Your task to perform on an android device: Search for "bose soundlink mini" on target.com, select the first entry, and add it to the cart. Image 0: 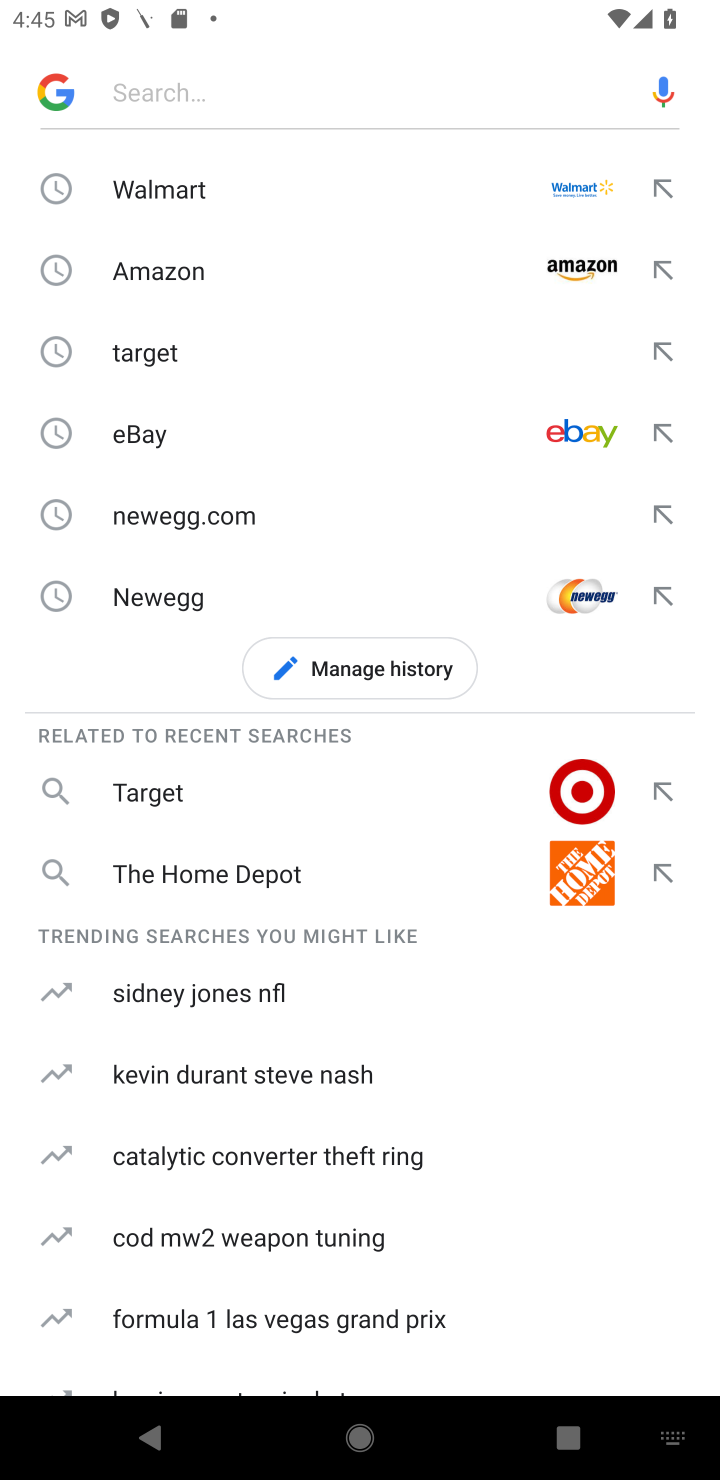
Step 0: type "target.com"
Your task to perform on an android device: Search for "bose soundlink mini" on target.com, select the first entry, and add it to the cart. Image 1: 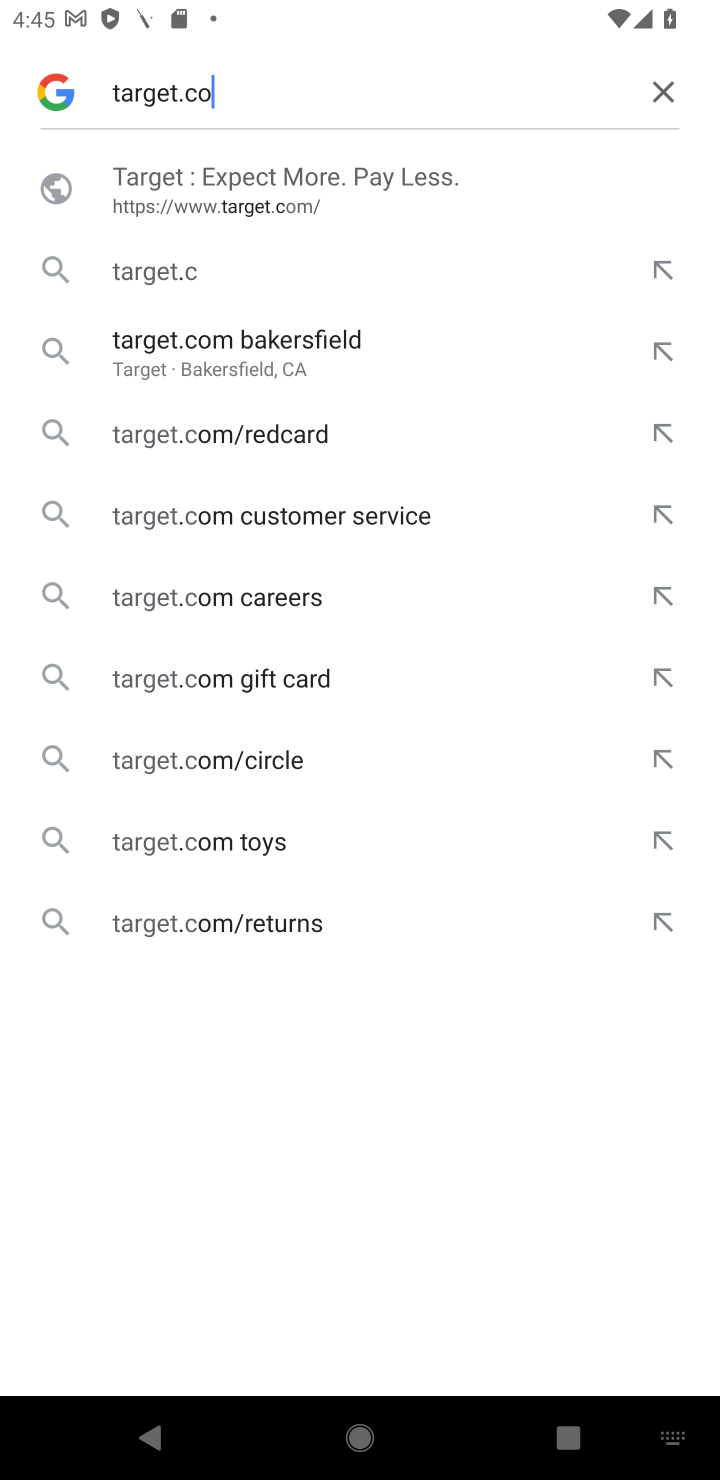
Step 1: type ""
Your task to perform on an android device: Search for "bose soundlink mini" on target.com, select the first entry, and add it to the cart. Image 2: 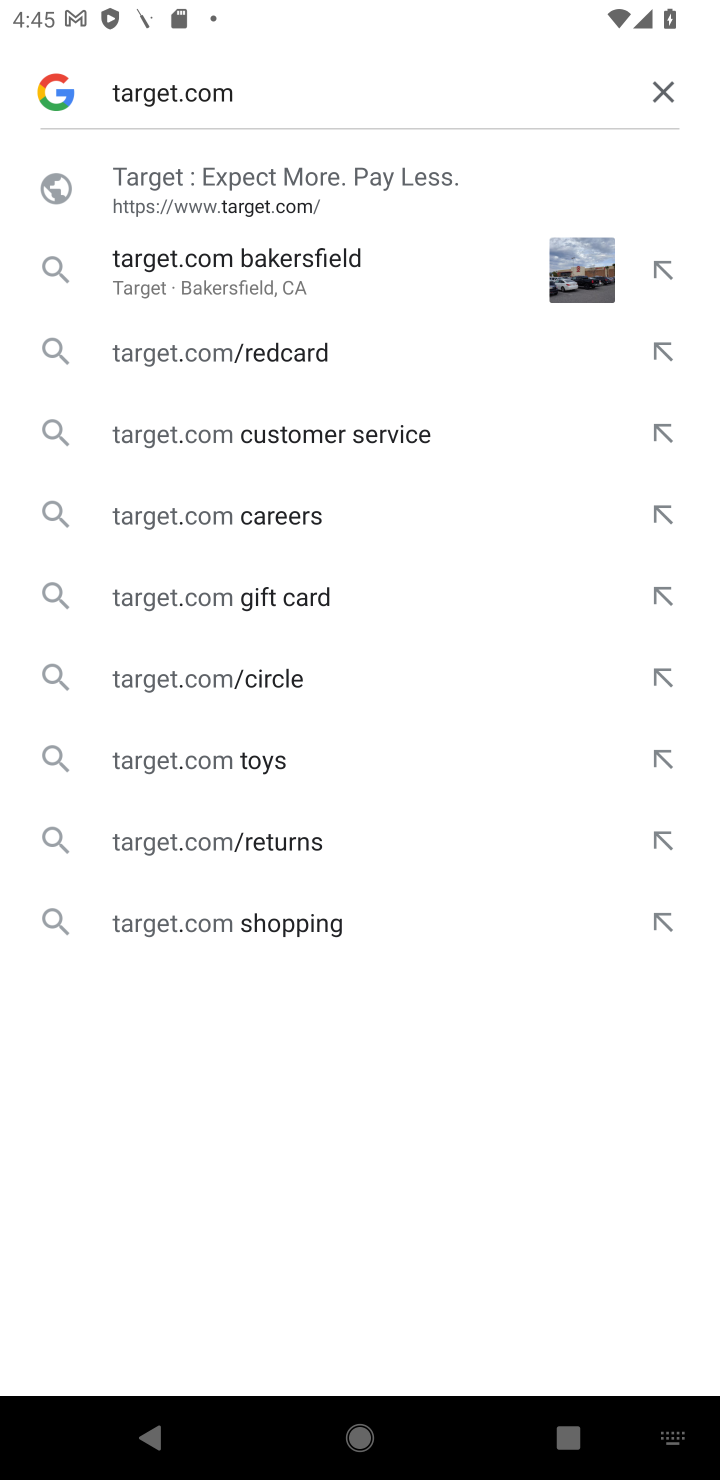
Step 2: click (201, 184)
Your task to perform on an android device: Search for "bose soundlink mini" on target.com, select the first entry, and add it to the cart. Image 3: 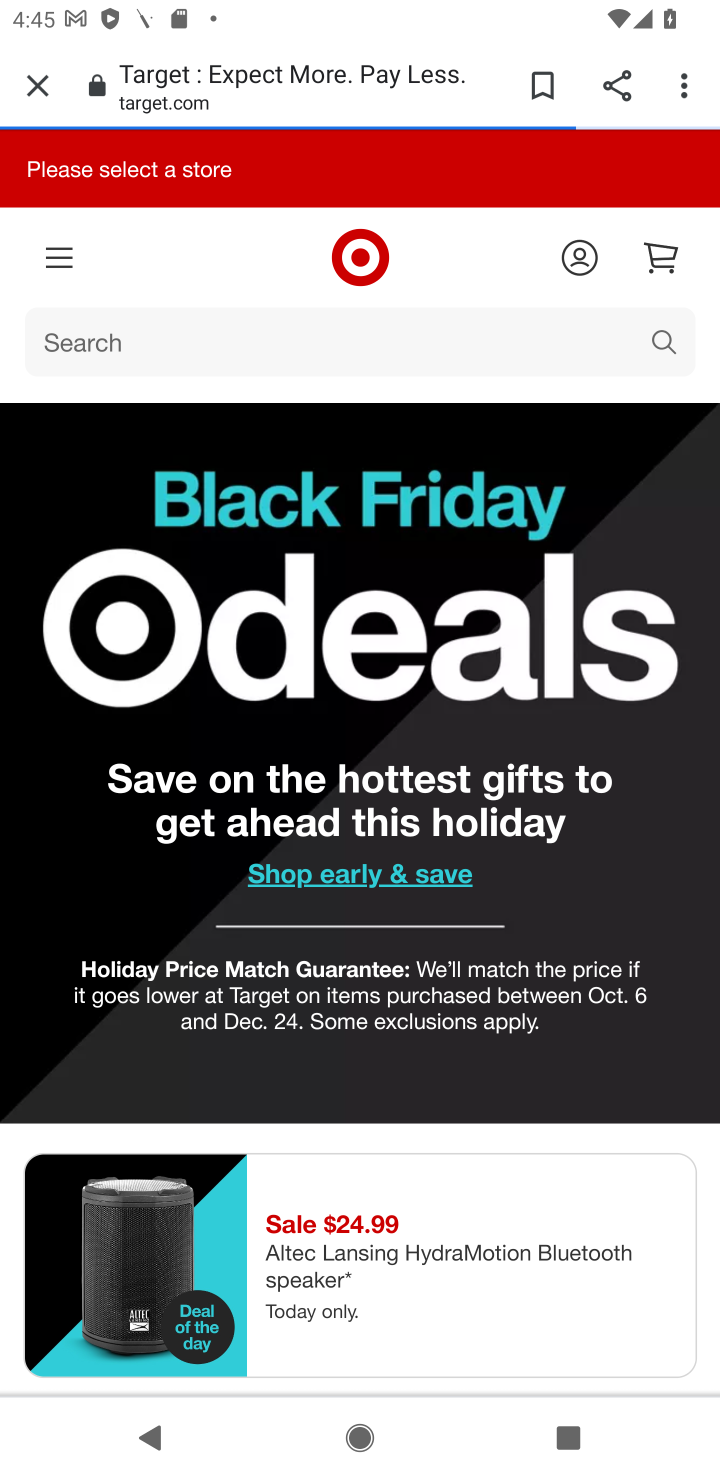
Step 3: click (394, 355)
Your task to perform on an android device: Search for "bose soundlink mini" on target.com, select the first entry, and add it to the cart. Image 4: 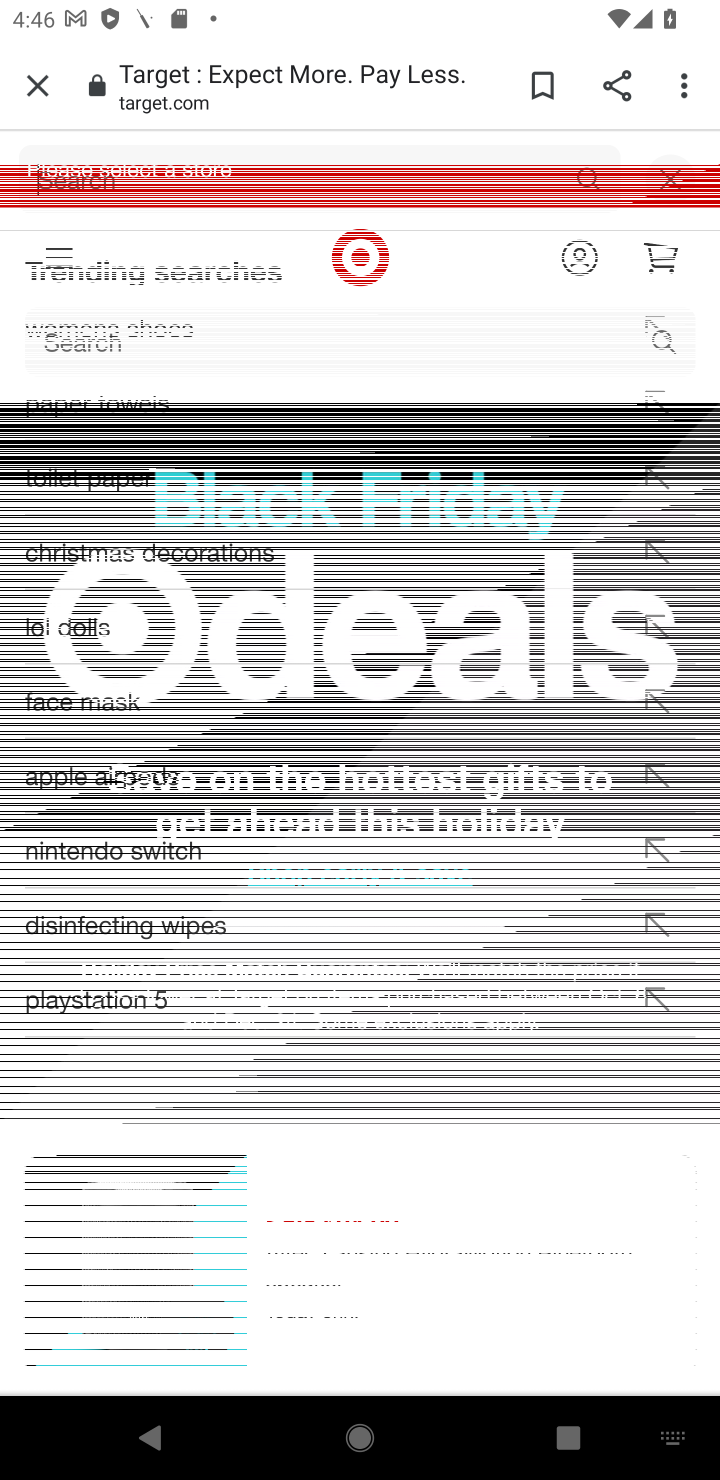
Step 4: type "bose soundlink mini"
Your task to perform on an android device: Search for "bose soundlink mini" on target.com, select the first entry, and add it to the cart. Image 5: 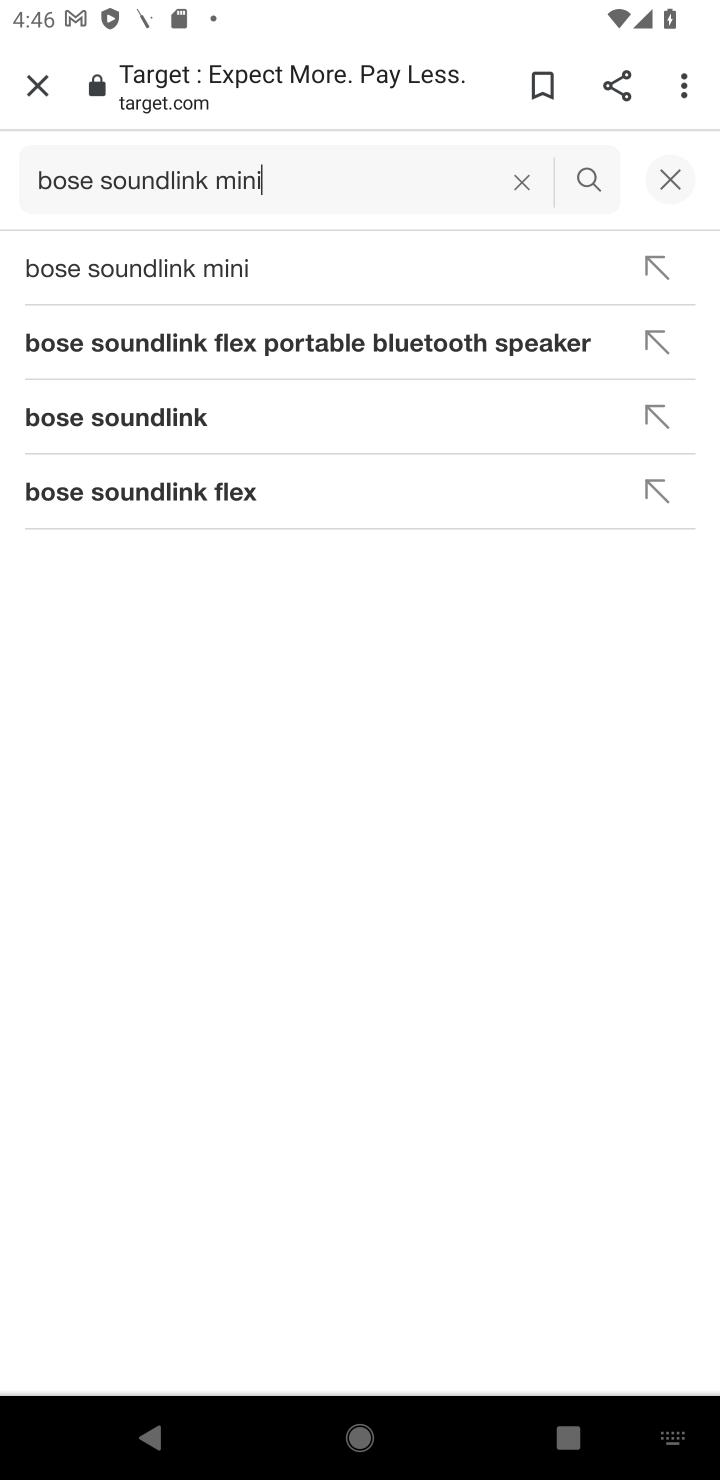
Step 5: click (572, 169)
Your task to perform on an android device: Search for "bose soundlink mini" on target.com, select the first entry, and add it to the cart. Image 6: 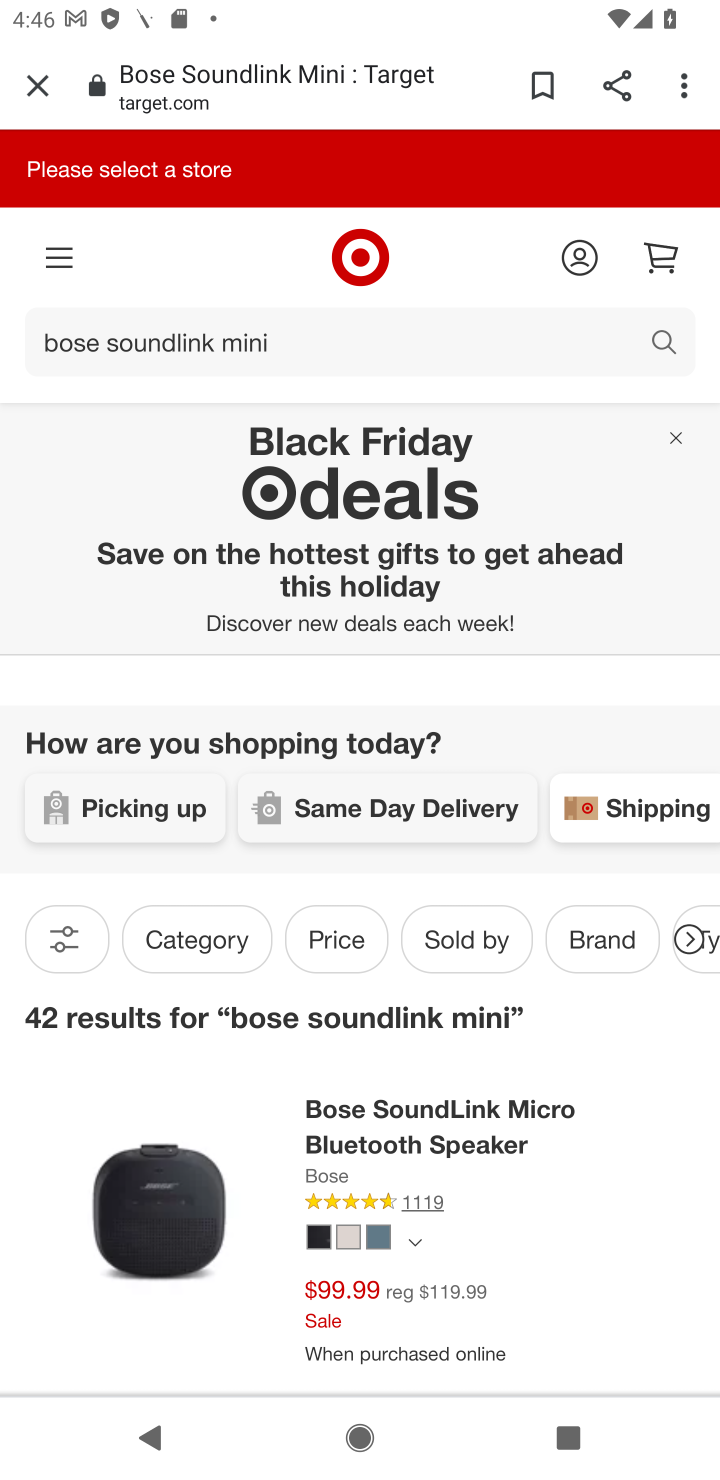
Step 6: click (469, 1140)
Your task to perform on an android device: Search for "bose soundlink mini" on target.com, select the first entry, and add it to the cart. Image 7: 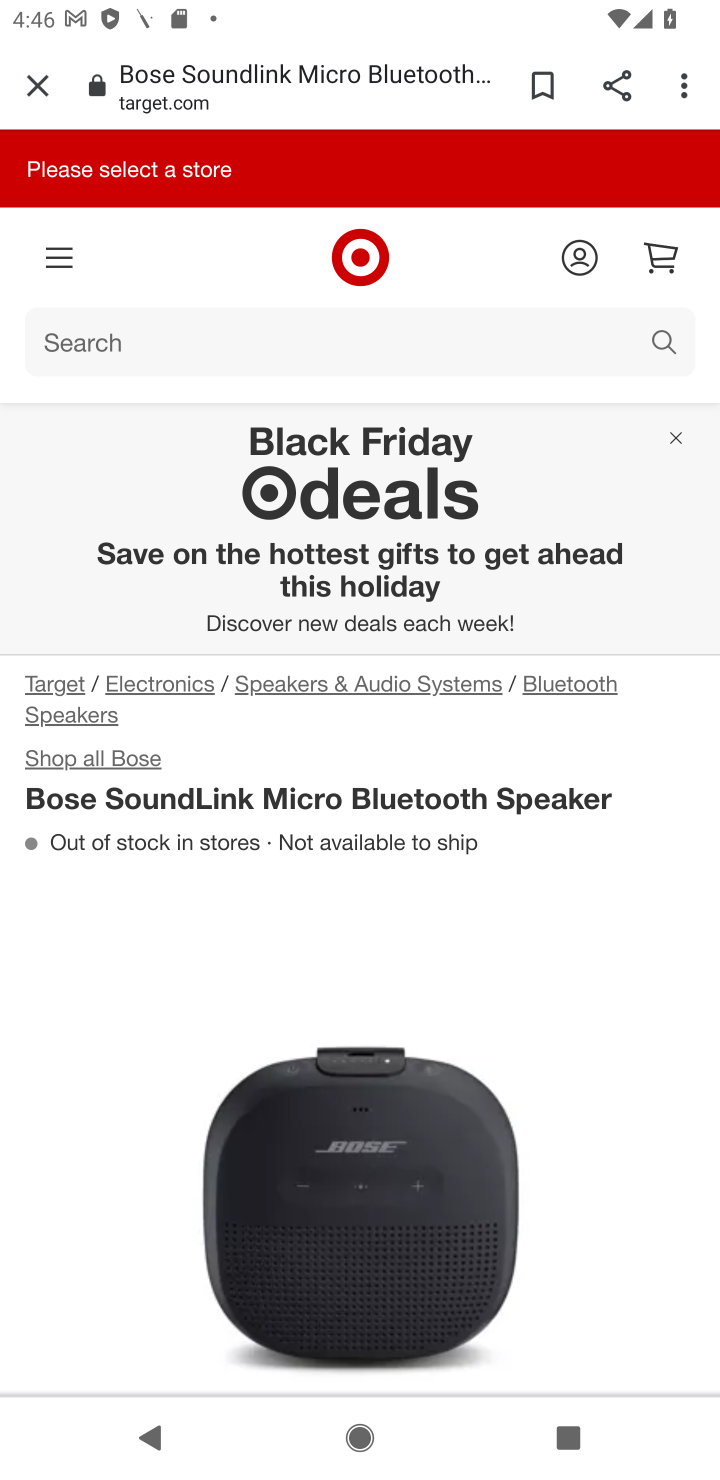
Step 7: drag from (525, 1227) to (410, 604)
Your task to perform on an android device: Search for "bose soundlink mini" on target.com, select the first entry, and add it to the cart. Image 8: 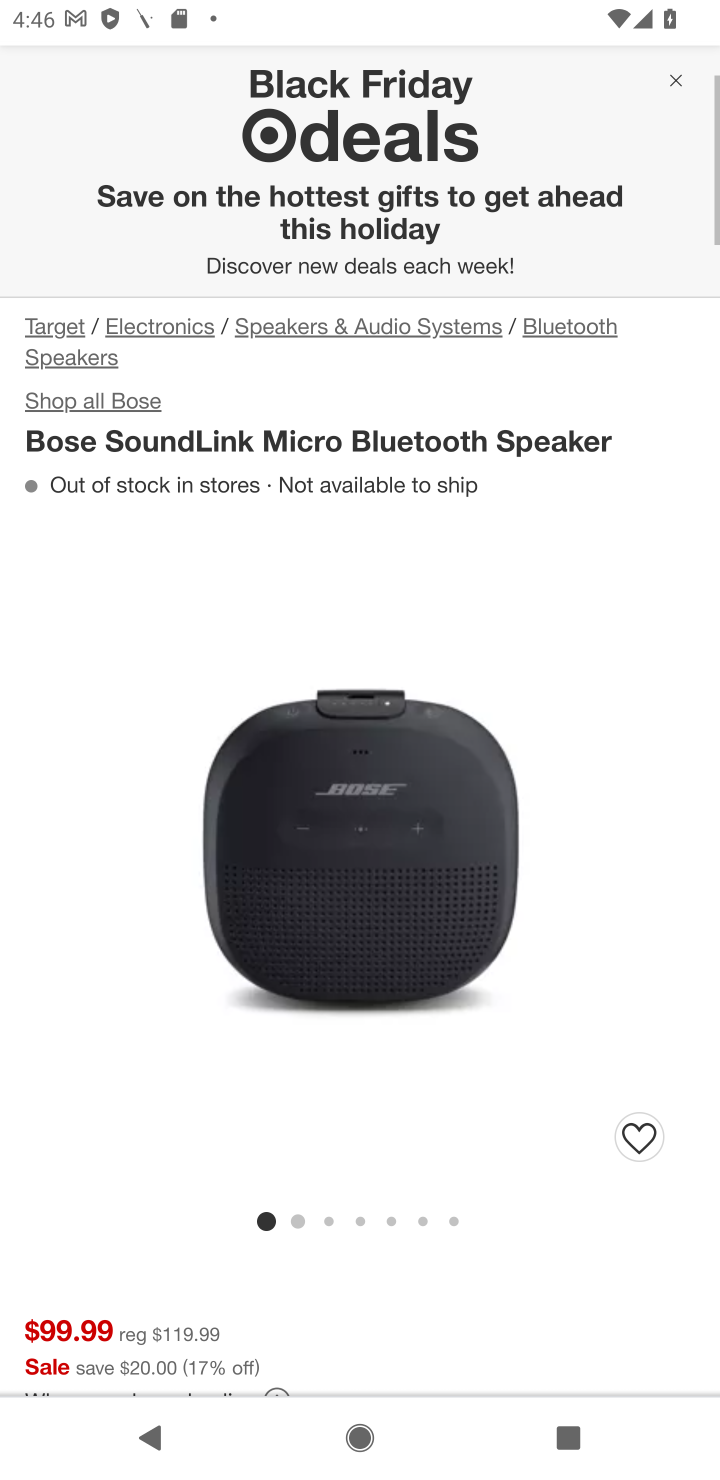
Step 8: drag from (489, 1121) to (392, 638)
Your task to perform on an android device: Search for "bose soundlink mini" on target.com, select the first entry, and add it to the cart. Image 9: 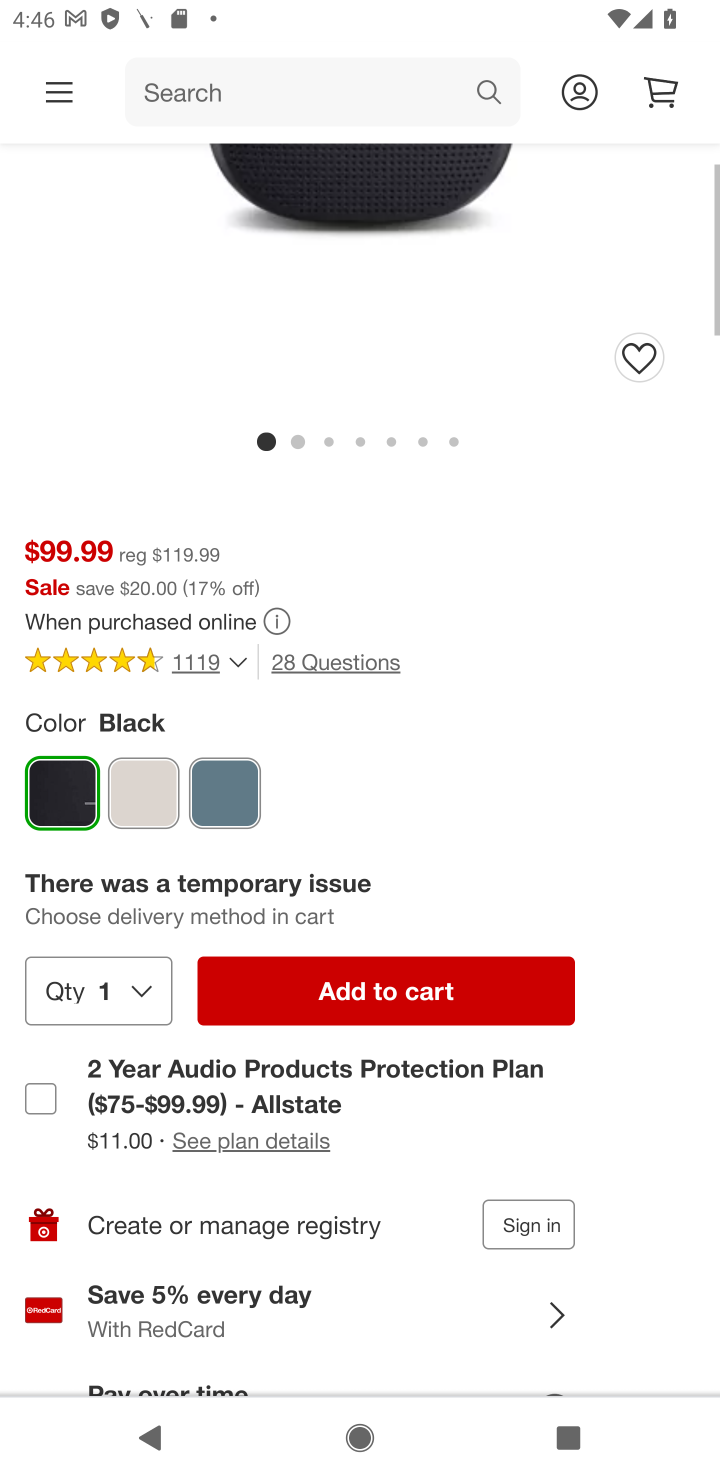
Step 9: drag from (482, 1012) to (467, 813)
Your task to perform on an android device: Search for "bose soundlink mini" on target.com, select the first entry, and add it to the cart. Image 10: 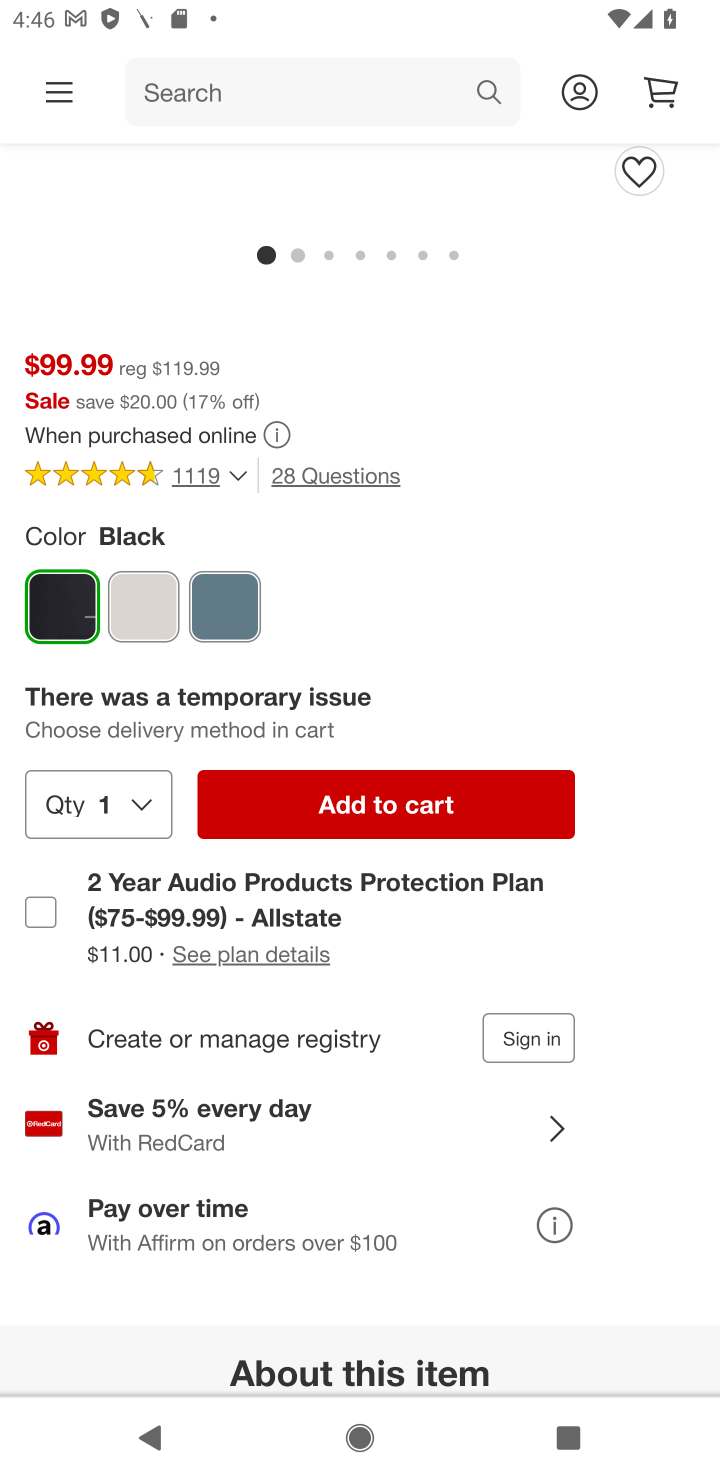
Step 10: click (343, 791)
Your task to perform on an android device: Search for "bose soundlink mini" on target.com, select the first entry, and add it to the cart. Image 11: 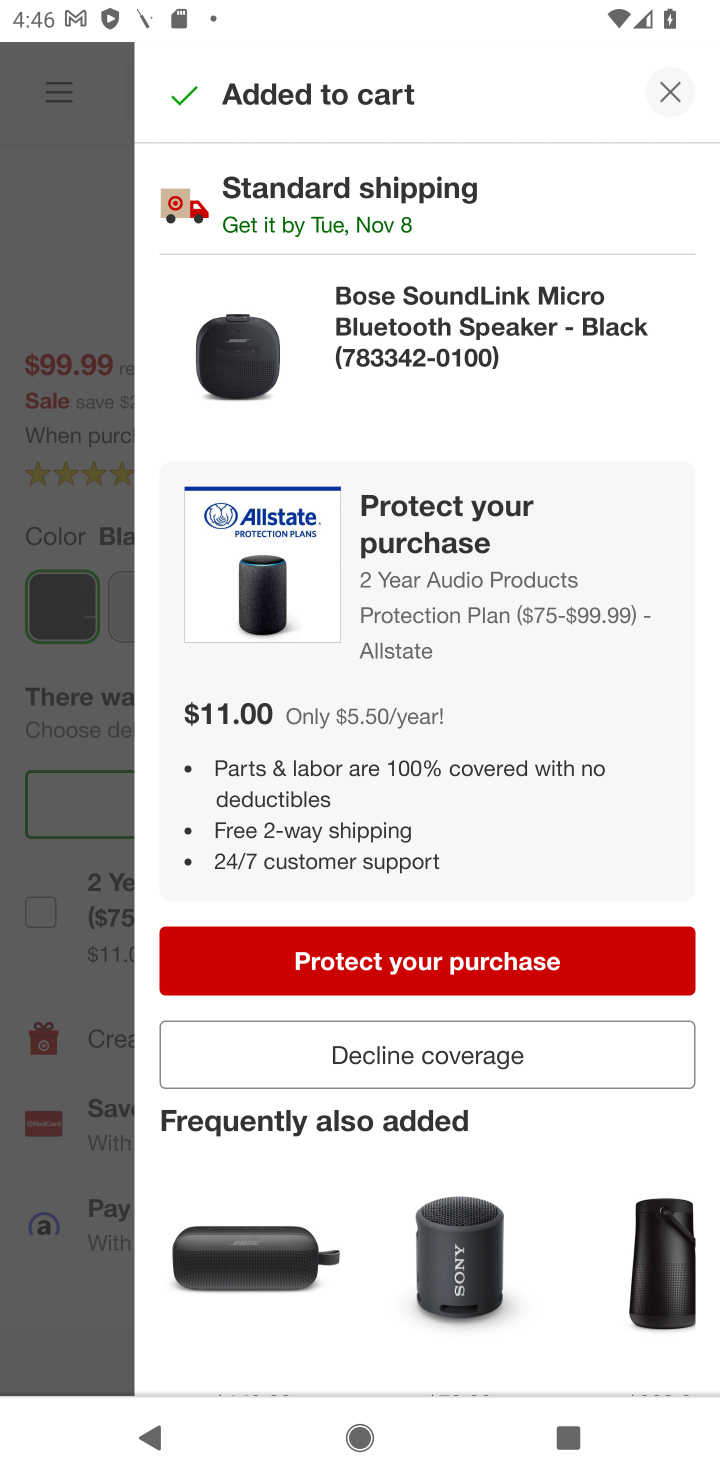
Step 11: click (474, 1066)
Your task to perform on an android device: Search for "bose soundlink mini" on target.com, select the first entry, and add it to the cart. Image 12: 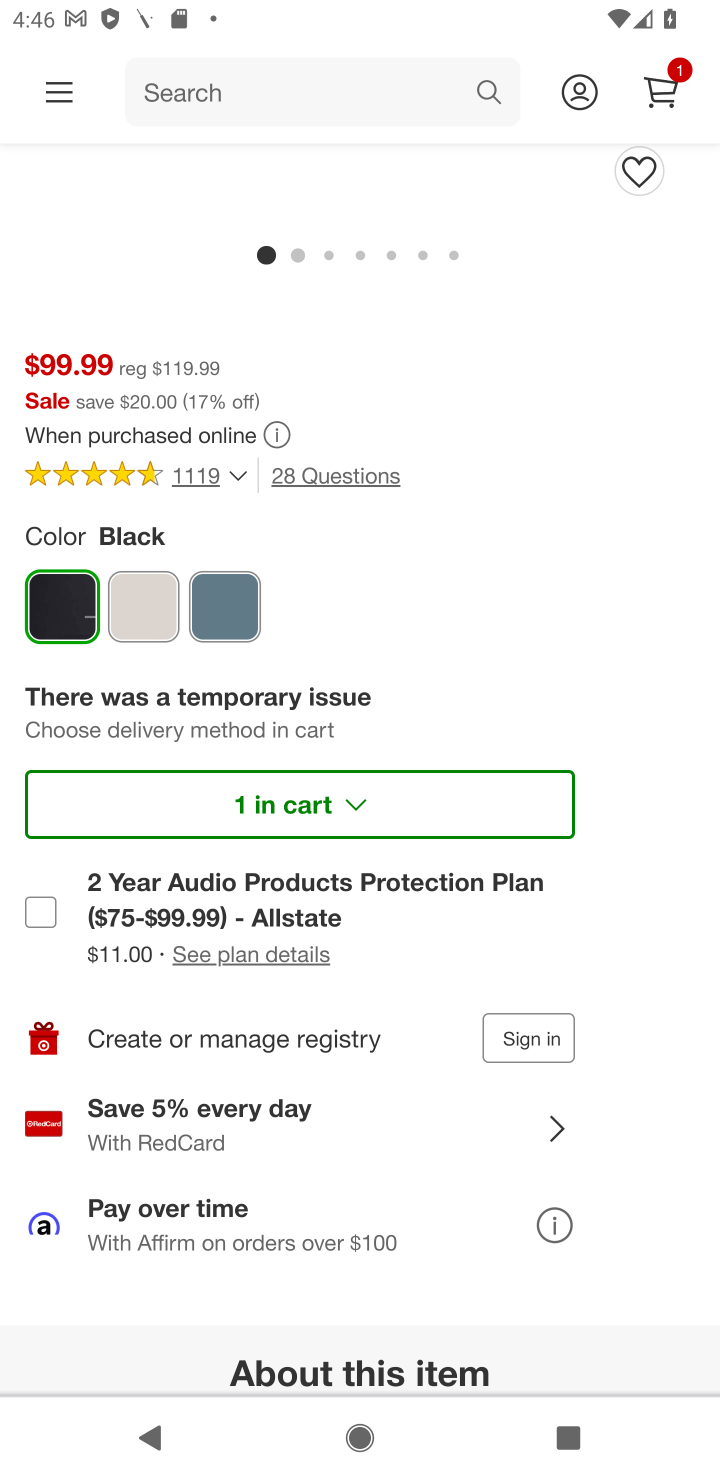
Step 12: drag from (442, 966) to (494, 520)
Your task to perform on an android device: Search for "bose soundlink mini" on target.com, select the first entry, and add it to the cart. Image 13: 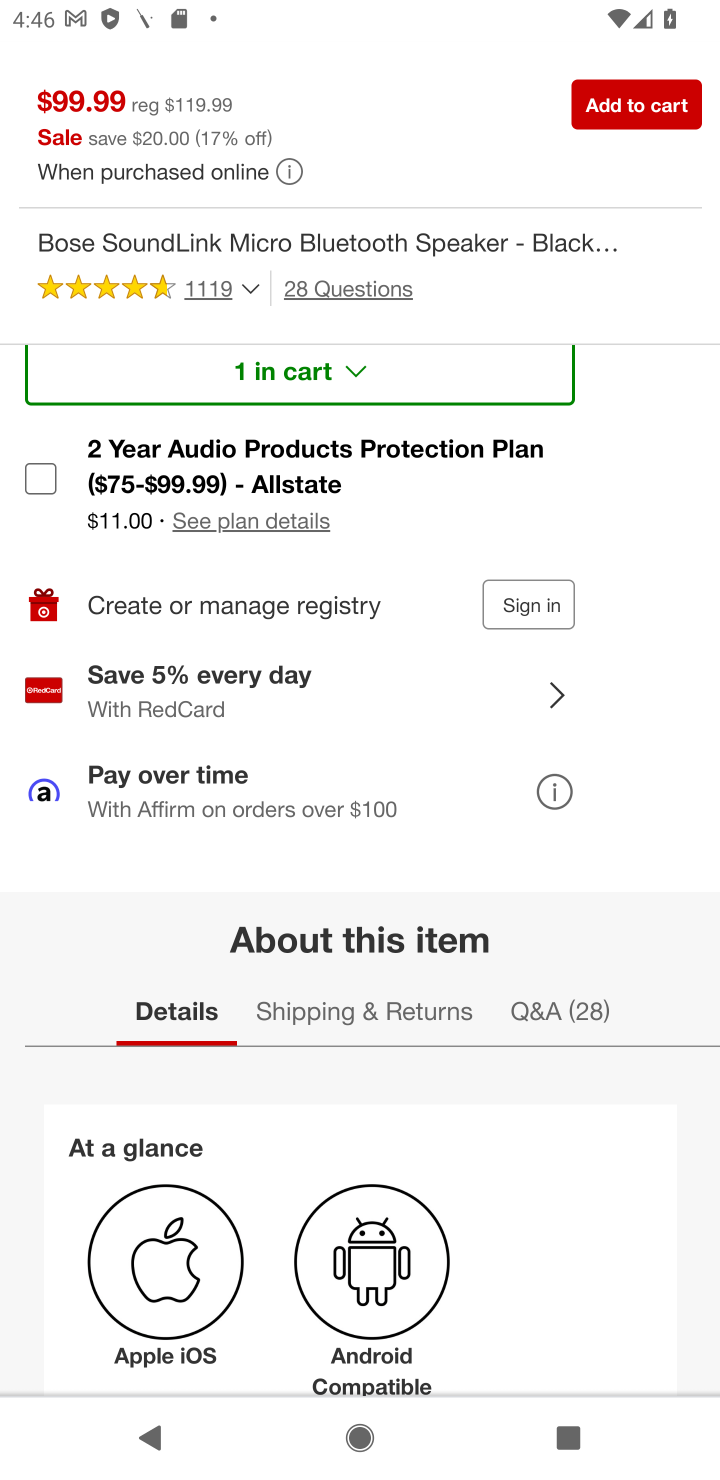
Step 13: drag from (502, 1155) to (446, 649)
Your task to perform on an android device: Search for "bose soundlink mini" on target.com, select the first entry, and add it to the cart. Image 14: 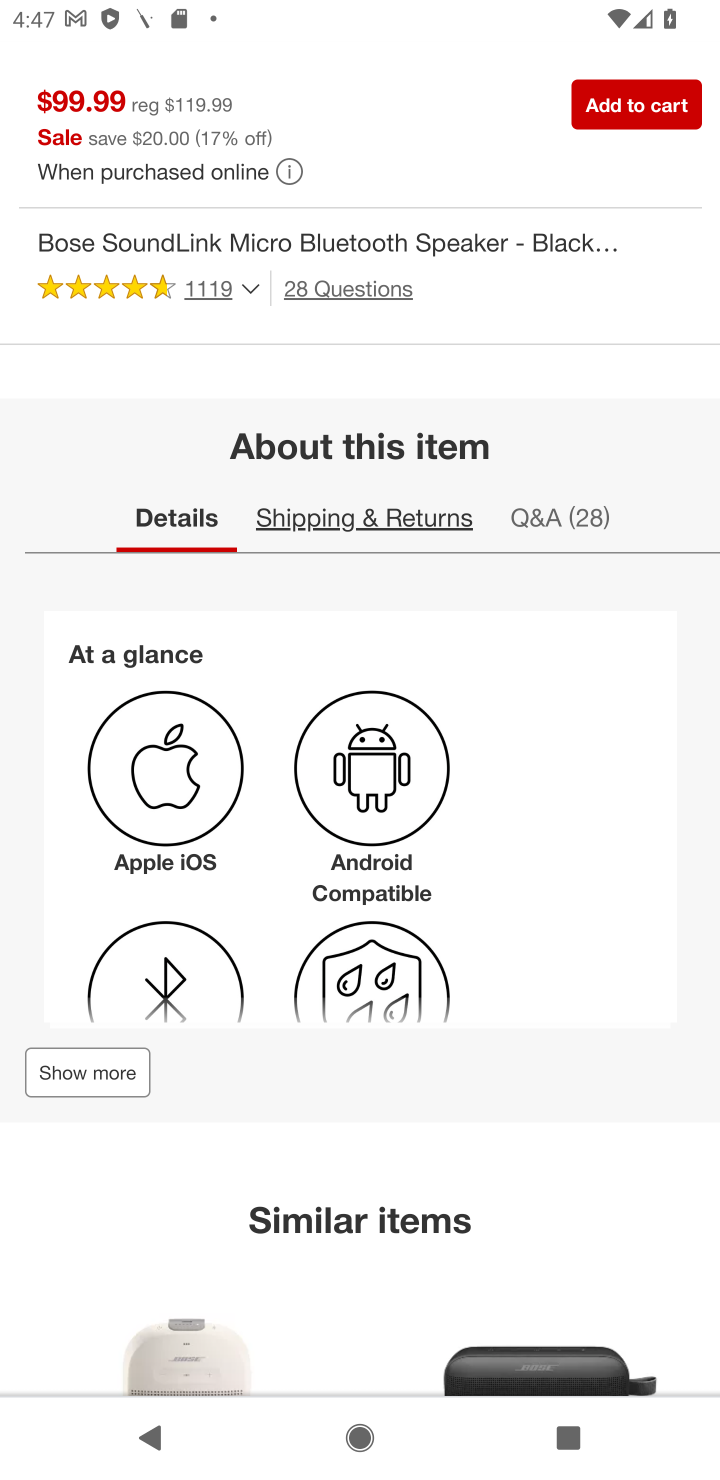
Step 14: click (667, 116)
Your task to perform on an android device: Search for "bose soundlink mini" on target.com, select the first entry, and add it to the cart. Image 15: 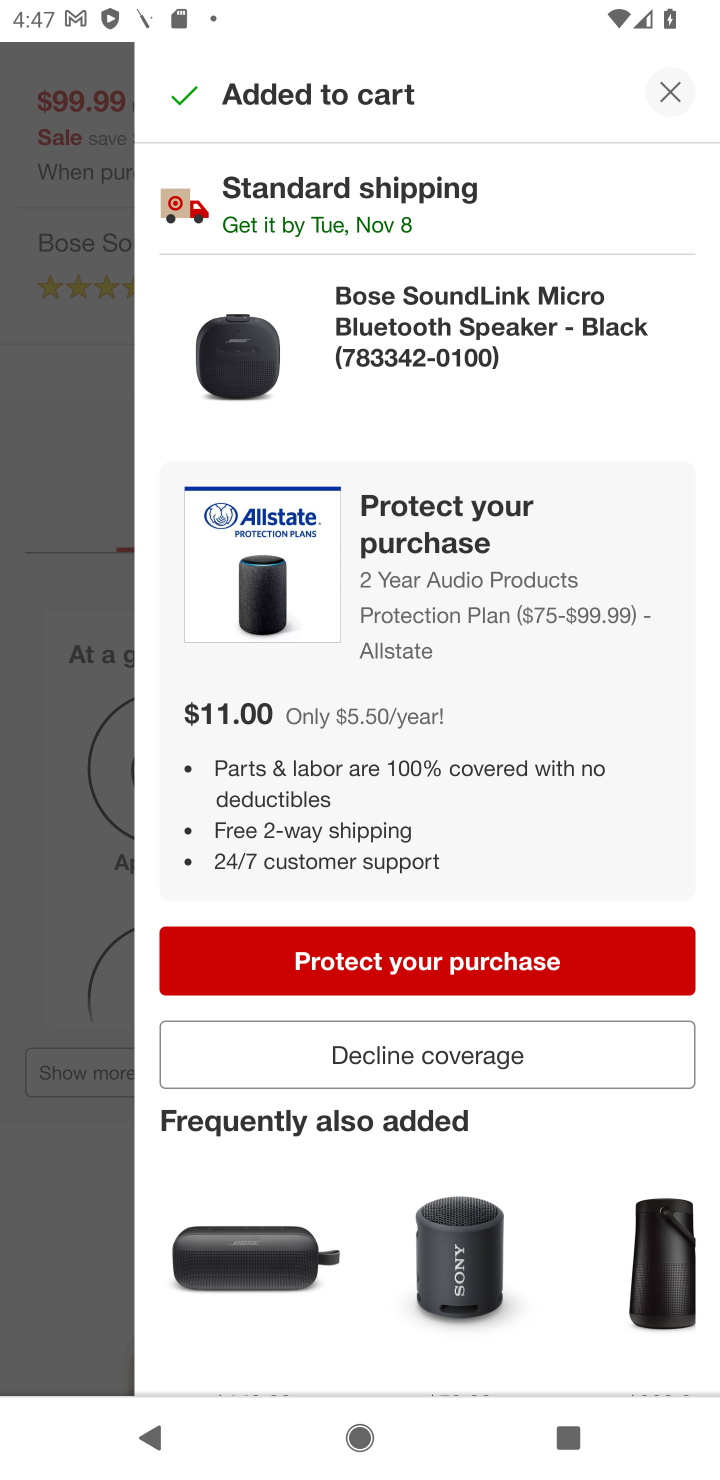
Step 15: task complete